Your task to perform on an android device: change timer sound Image 0: 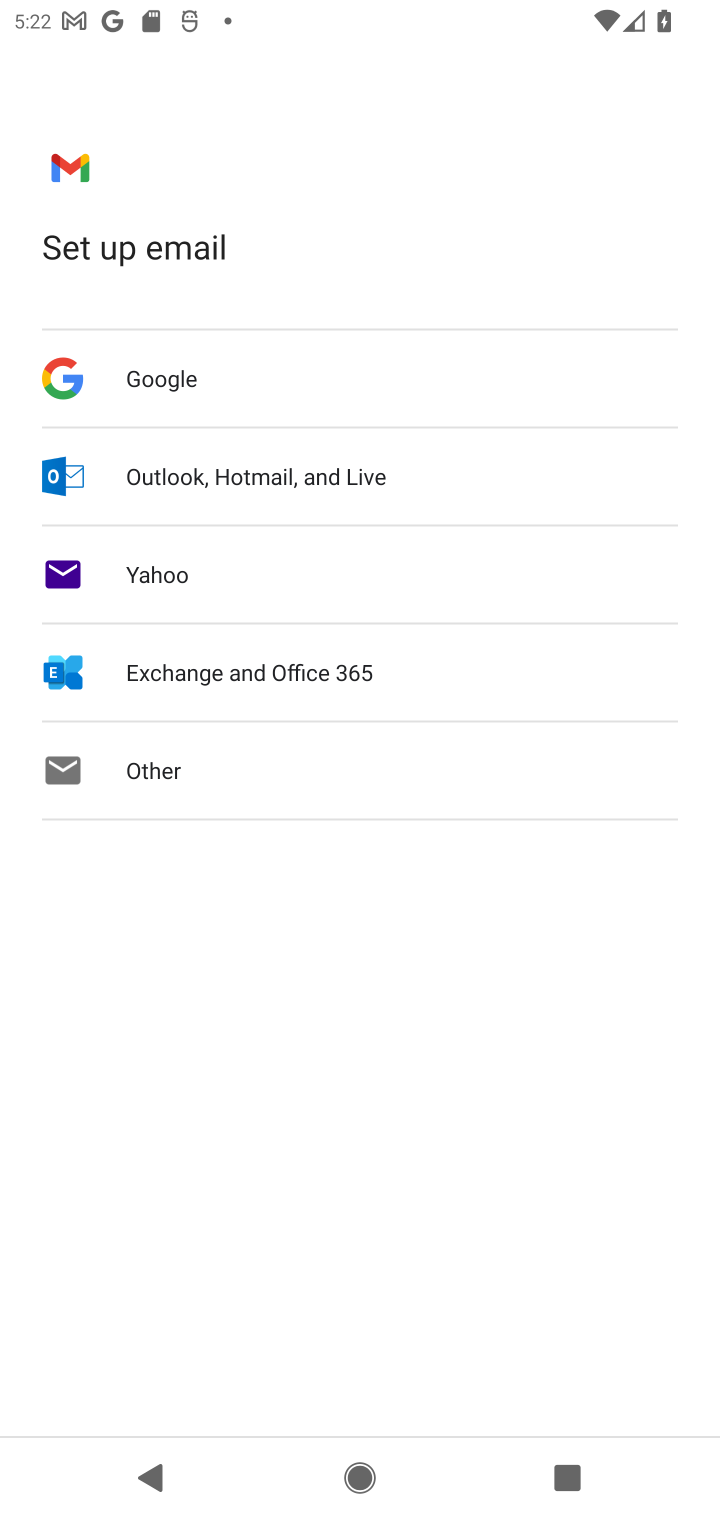
Step 0: press home button
Your task to perform on an android device: change timer sound Image 1: 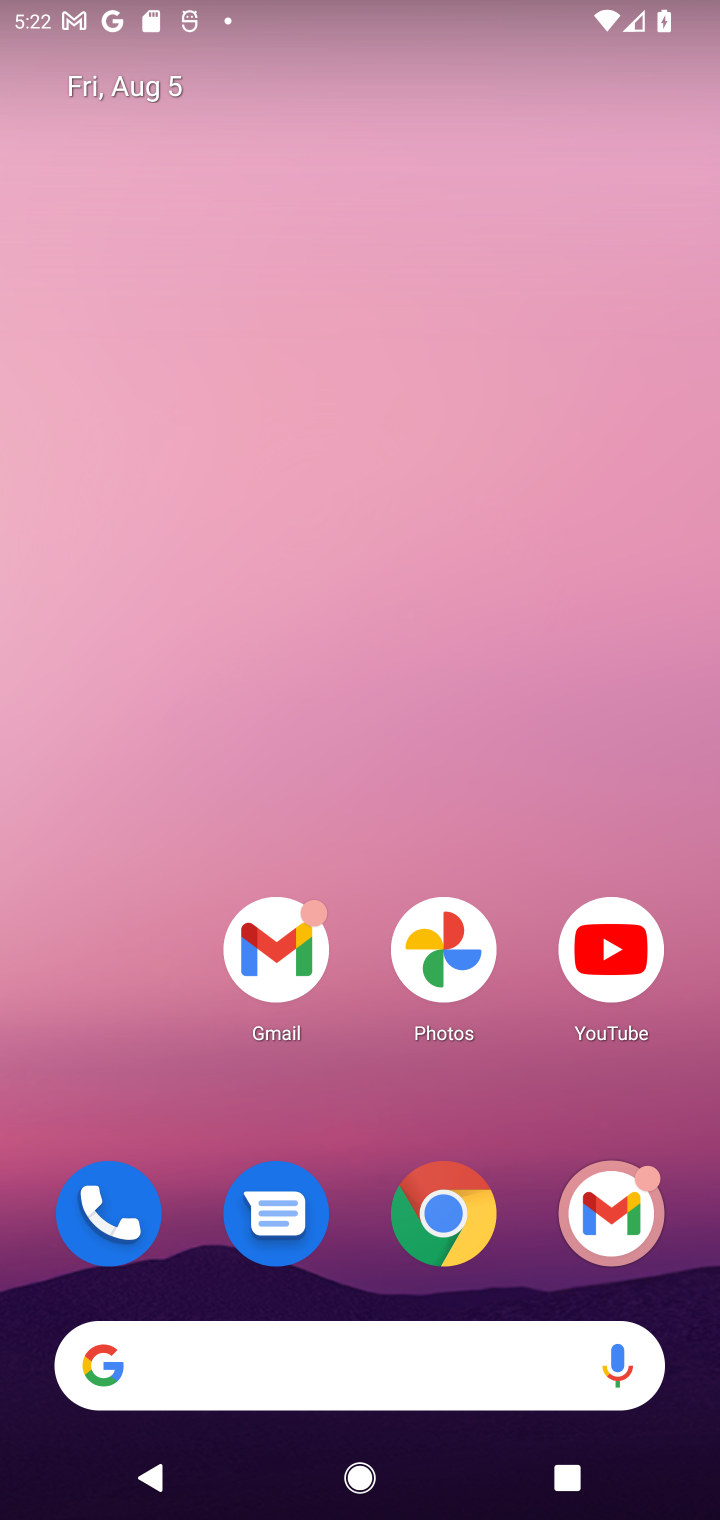
Step 1: drag from (370, 1255) to (325, 52)
Your task to perform on an android device: change timer sound Image 2: 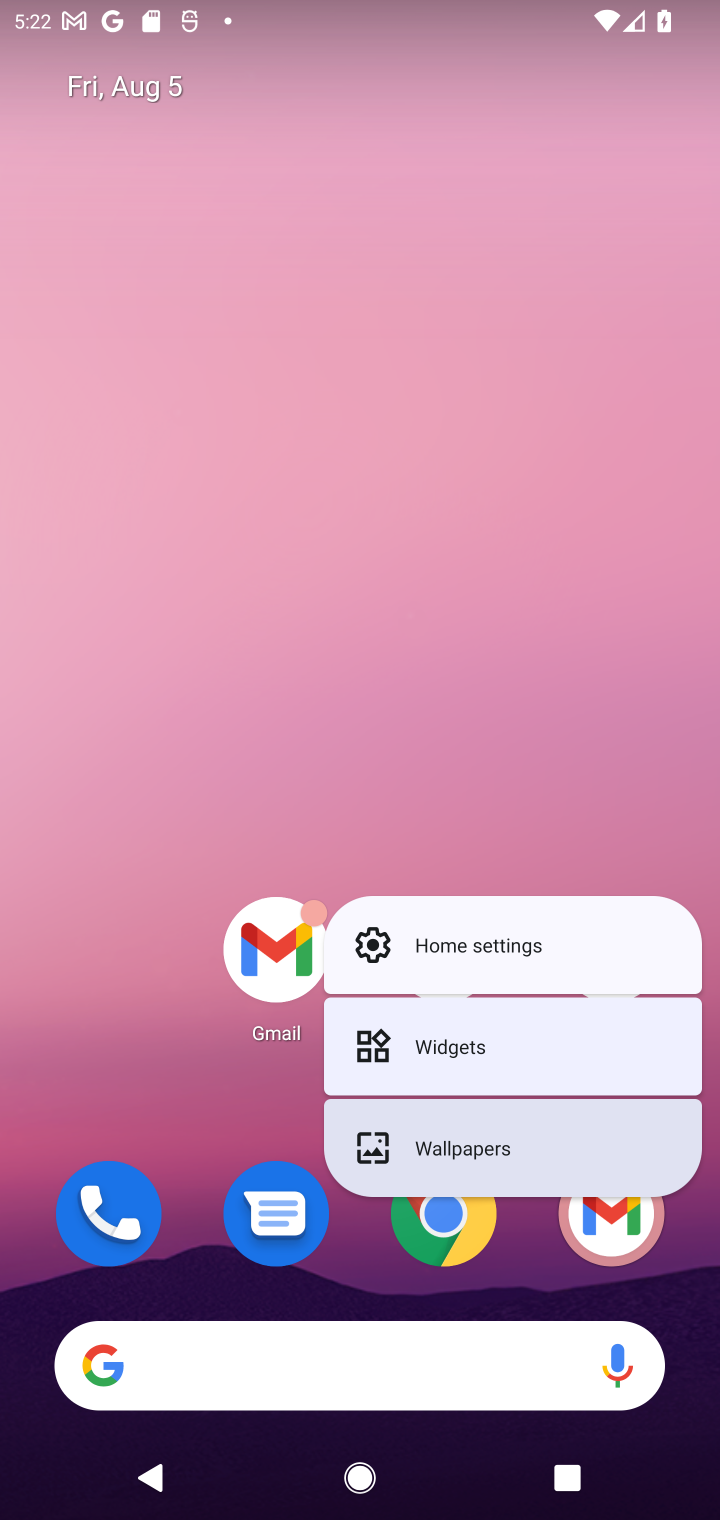
Step 2: click (407, 265)
Your task to perform on an android device: change timer sound Image 3: 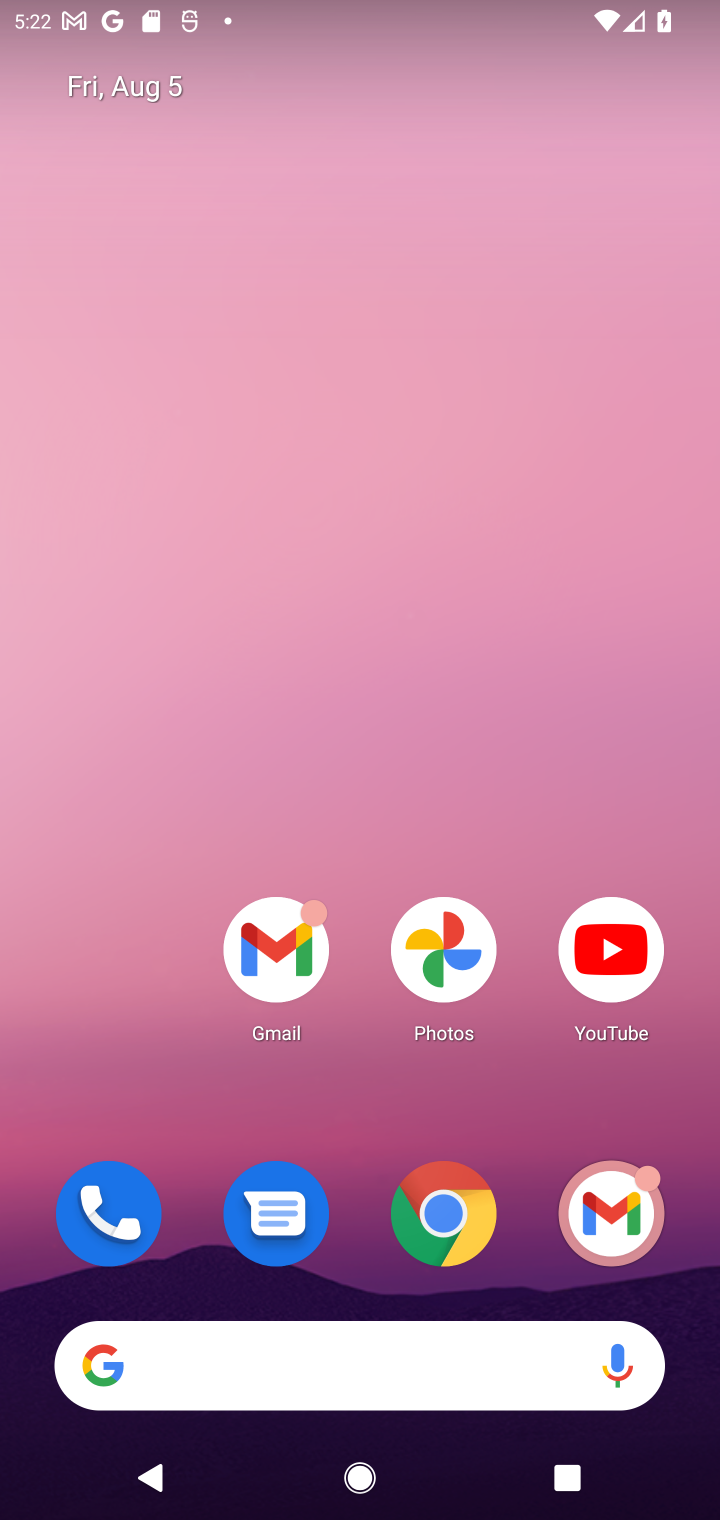
Step 3: drag from (378, 1296) to (268, 378)
Your task to perform on an android device: change timer sound Image 4: 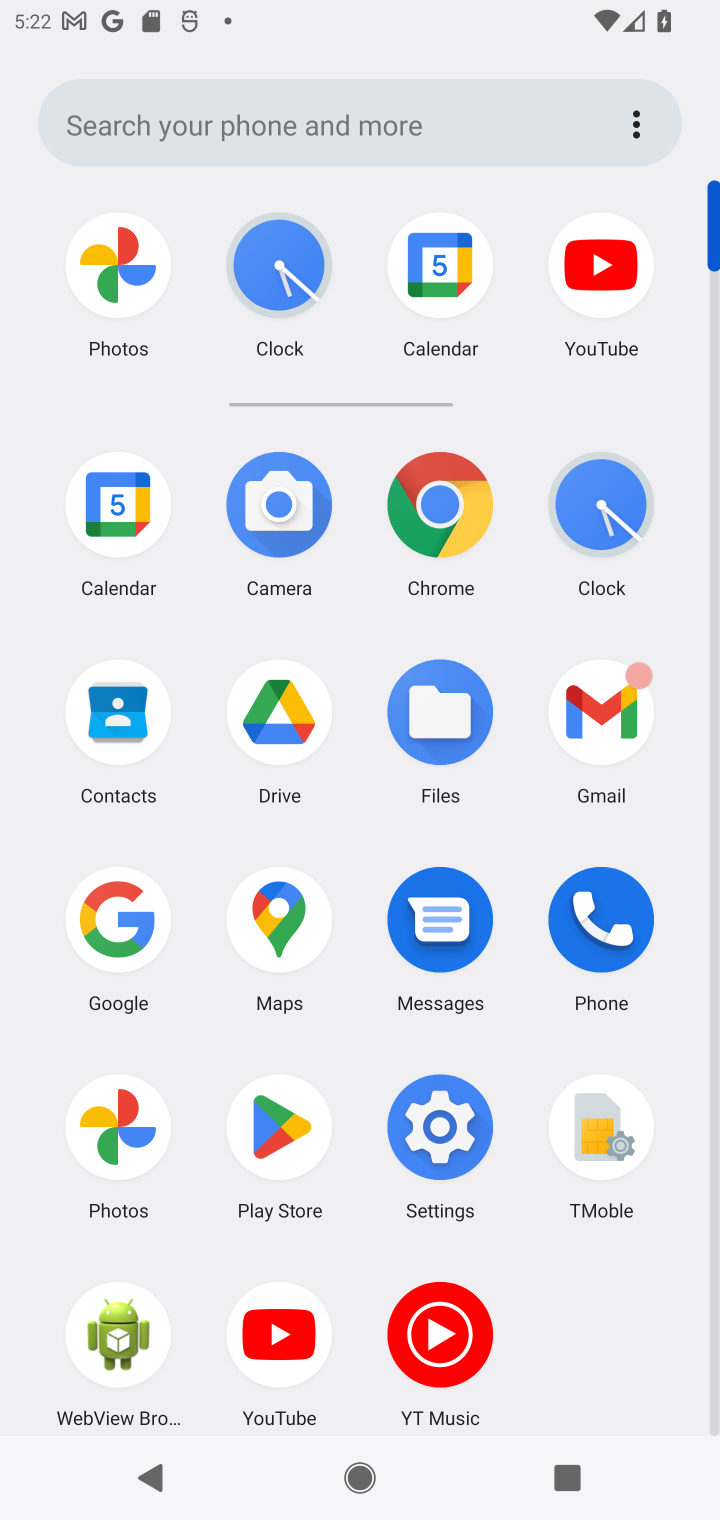
Step 4: click (591, 561)
Your task to perform on an android device: change timer sound Image 5: 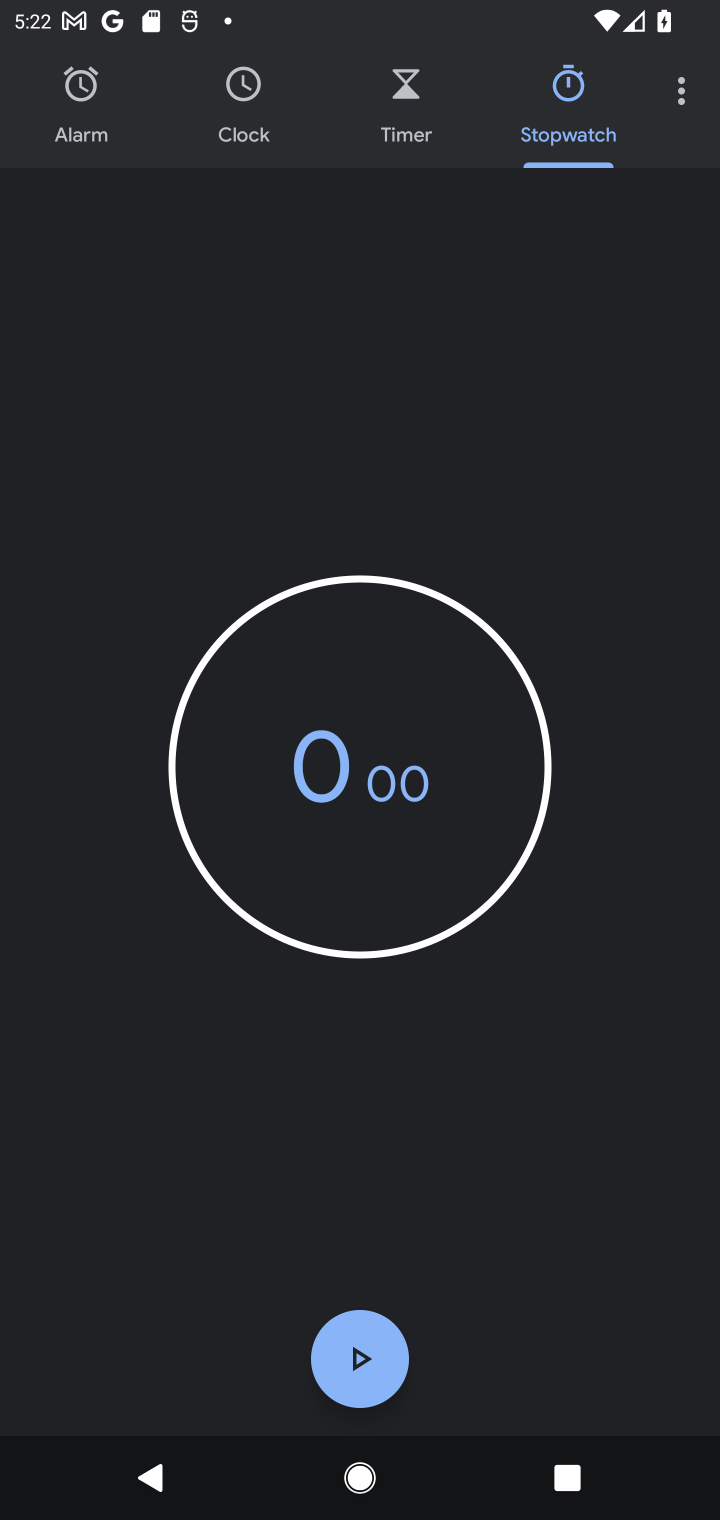
Step 5: click (693, 133)
Your task to perform on an android device: change timer sound Image 6: 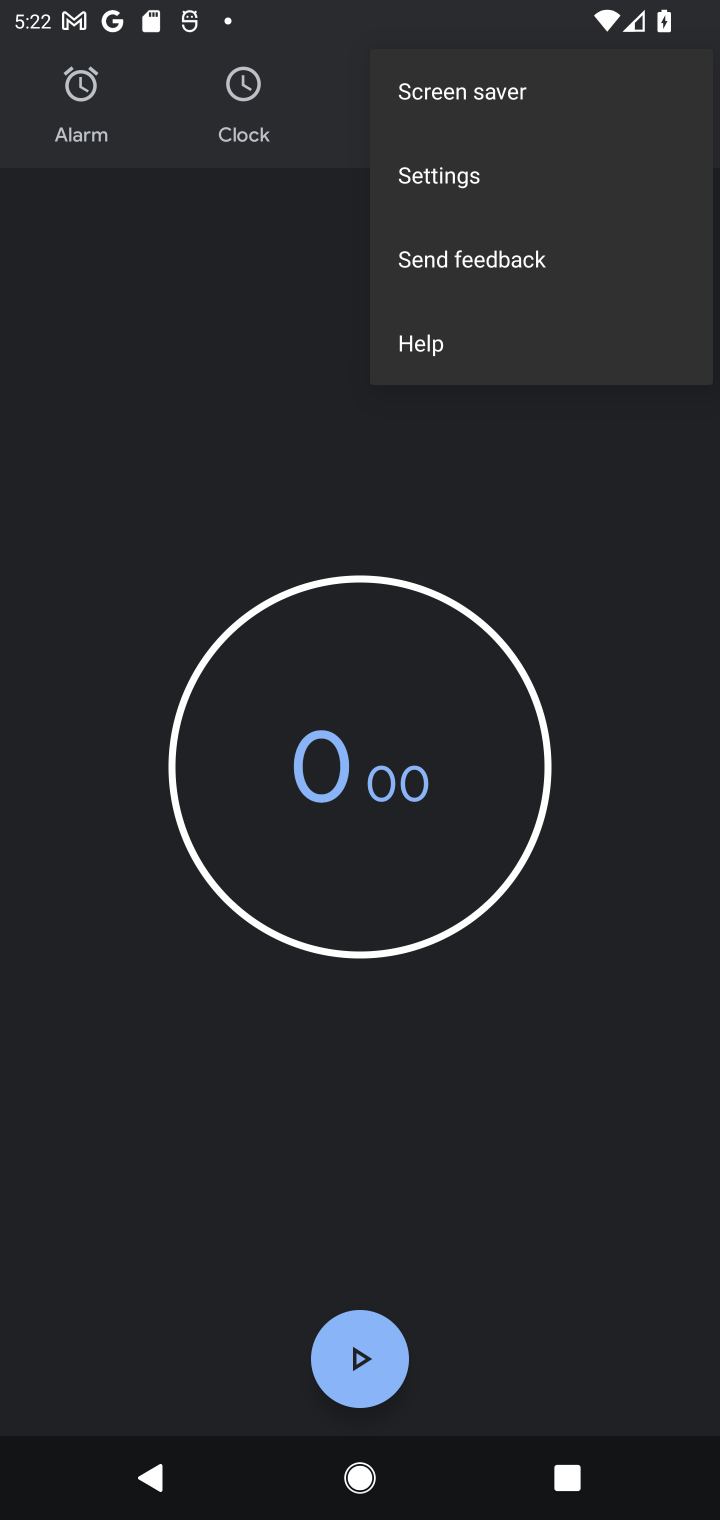
Step 6: click (483, 192)
Your task to perform on an android device: change timer sound Image 7: 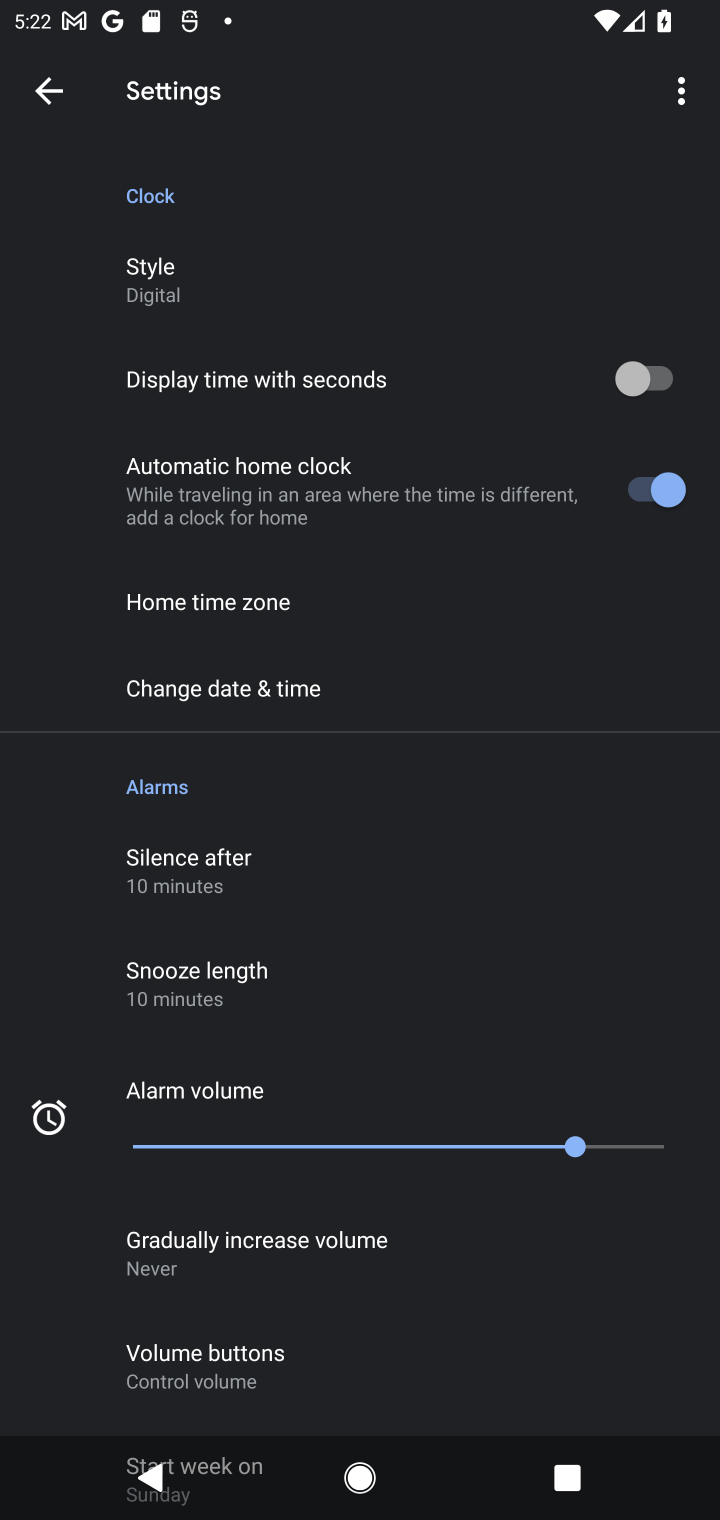
Step 7: task complete